Your task to perform on an android device: change the upload size in google photos Image 0: 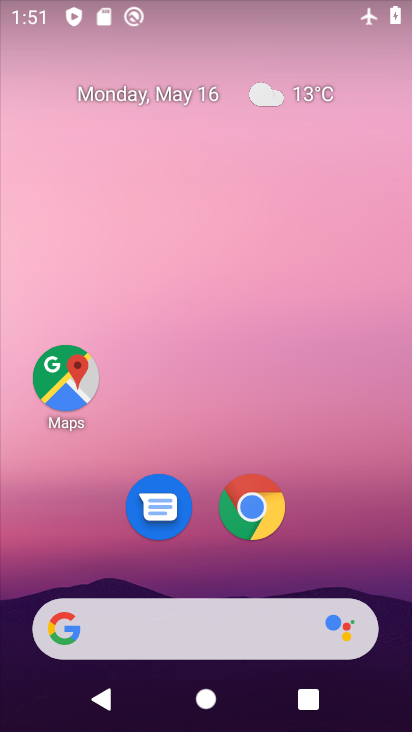
Step 0: drag from (197, 547) to (251, 8)
Your task to perform on an android device: change the upload size in google photos Image 1: 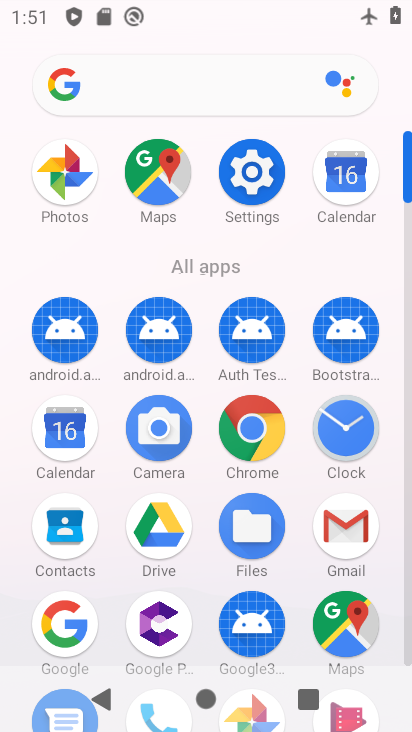
Step 1: drag from (275, 680) to (305, 449)
Your task to perform on an android device: change the upload size in google photos Image 2: 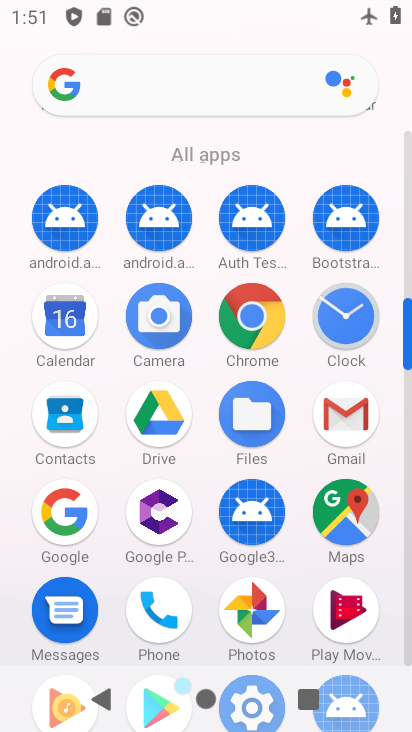
Step 2: click (261, 623)
Your task to perform on an android device: change the upload size in google photos Image 3: 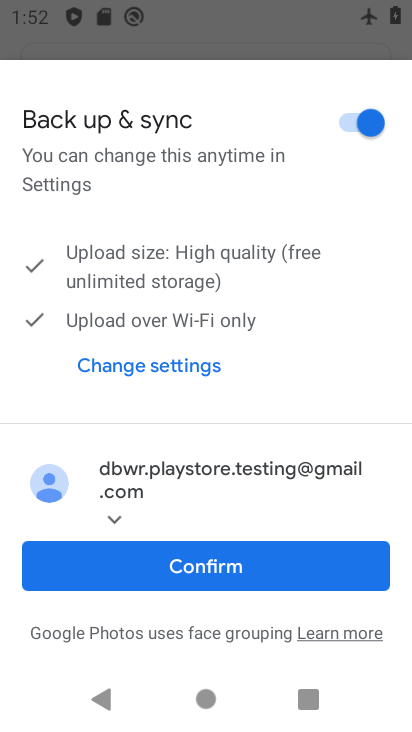
Step 3: click (264, 576)
Your task to perform on an android device: change the upload size in google photos Image 4: 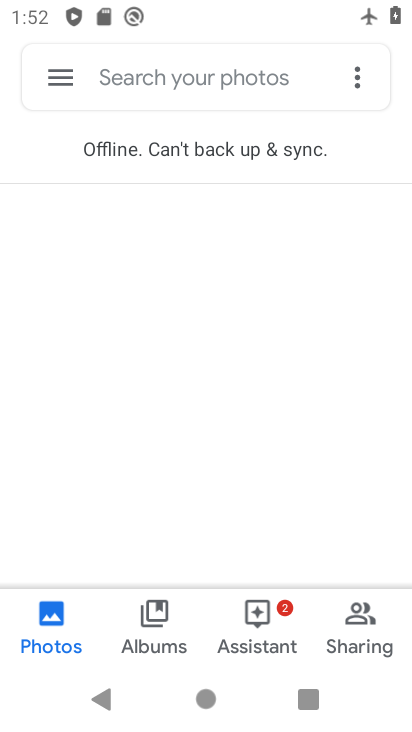
Step 4: click (60, 86)
Your task to perform on an android device: change the upload size in google photos Image 5: 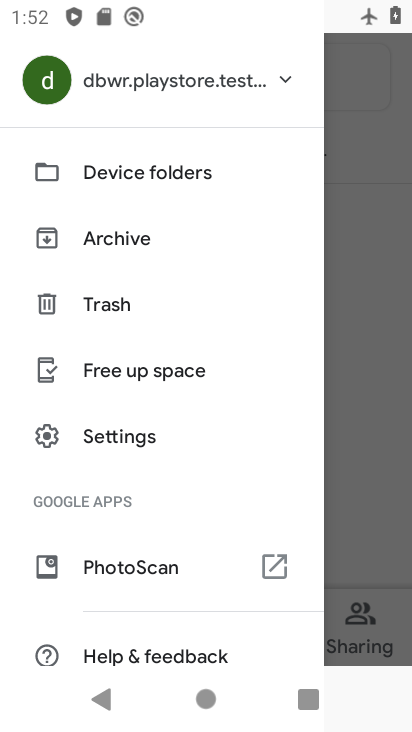
Step 5: click (172, 440)
Your task to perform on an android device: change the upload size in google photos Image 6: 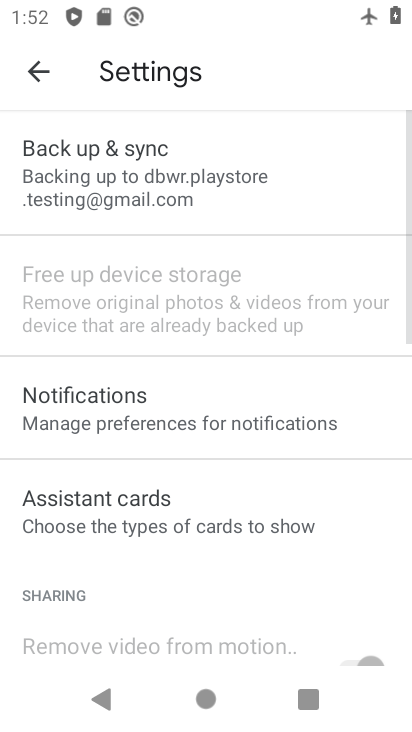
Step 6: click (202, 210)
Your task to perform on an android device: change the upload size in google photos Image 7: 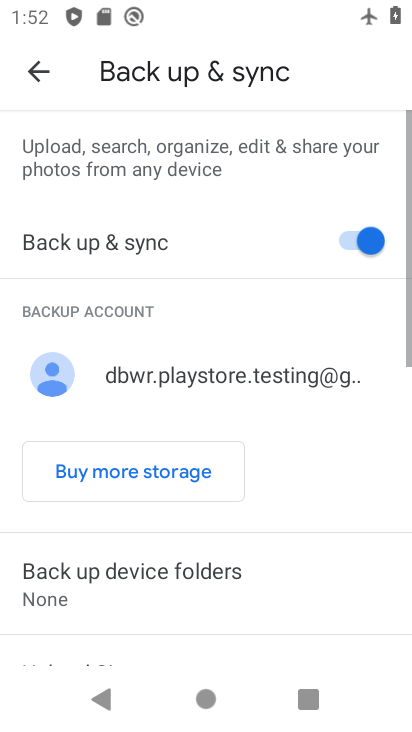
Step 7: drag from (197, 628) to (264, 241)
Your task to perform on an android device: change the upload size in google photos Image 8: 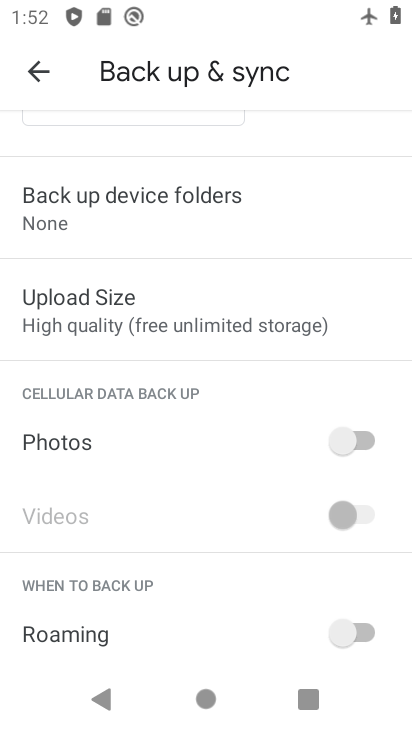
Step 8: click (215, 331)
Your task to perform on an android device: change the upload size in google photos Image 9: 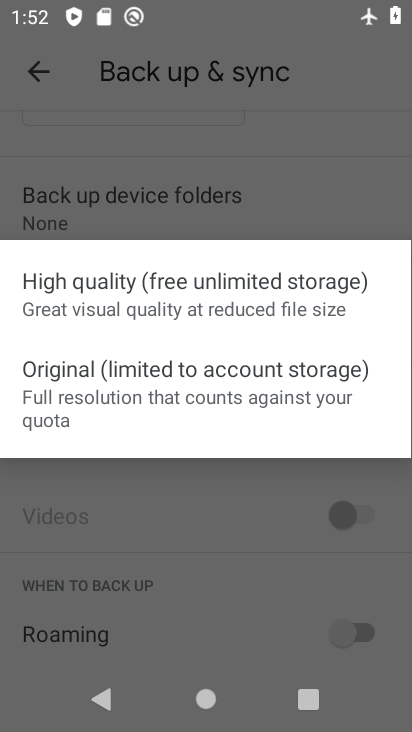
Step 9: click (307, 400)
Your task to perform on an android device: change the upload size in google photos Image 10: 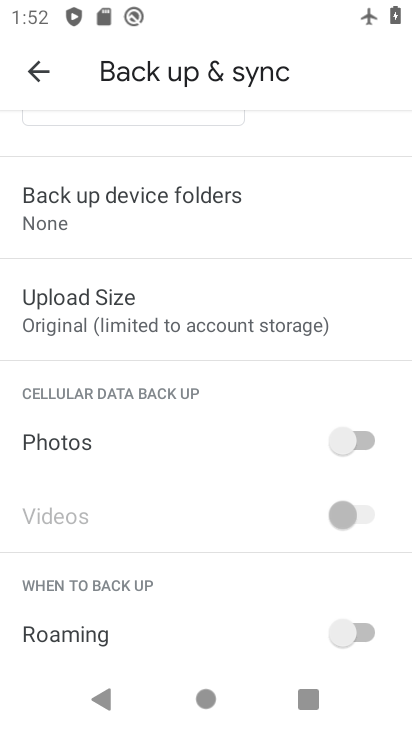
Step 10: task complete